Your task to perform on an android device: Open Android settings Image 0: 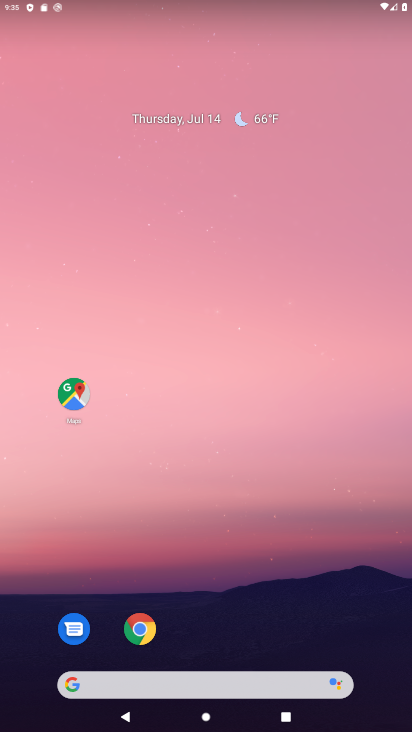
Step 0: press home button
Your task to perform on an android device: Open Android settings Image 1: 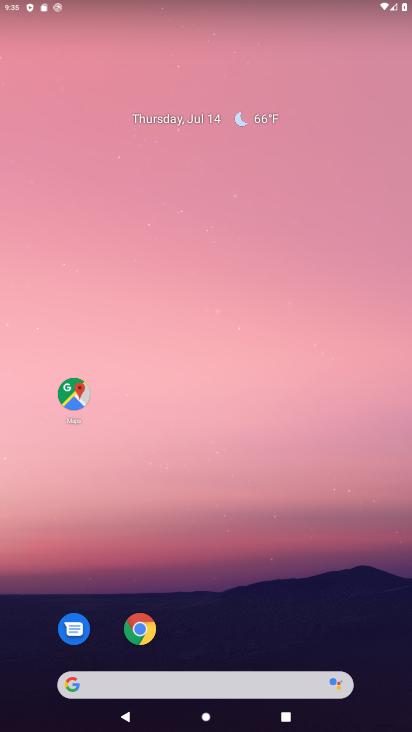
Step 1: drag from (298, 599) to (193, 41)
Your task to perform on an android device: Open Android settings Image 2: 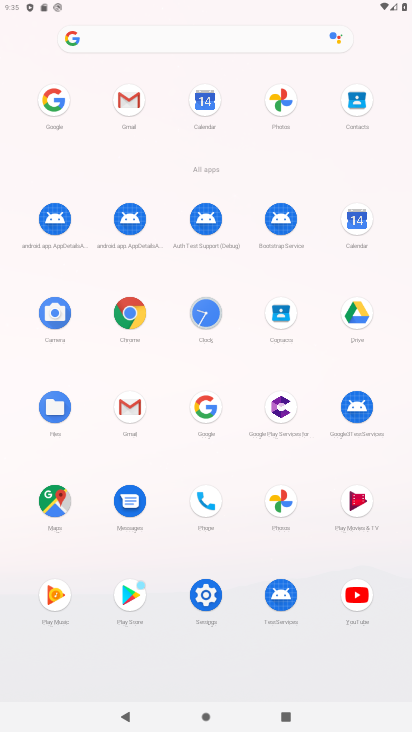
Step 2: click (214, 588)
Your task to perform on an android device: Open Android settings Image 3: 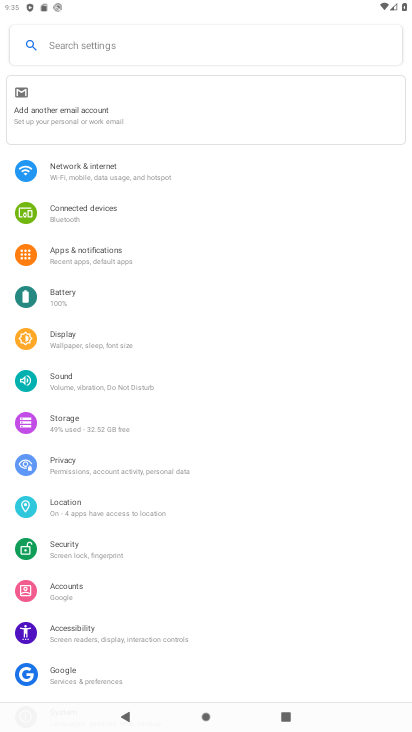
Step 3: task complete